Your task to perform on an android device: open app "Flipkart Online Shopping App" Image 0: 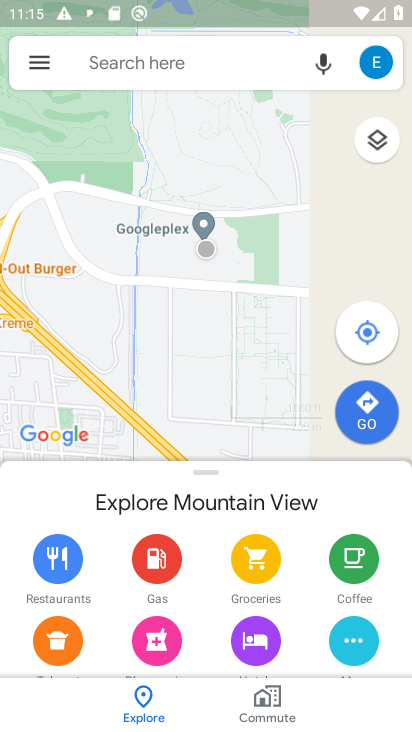
Step 0: press home button
Your task to perform on an android device: open app "Flipkart Online Shopping App" Image 1: 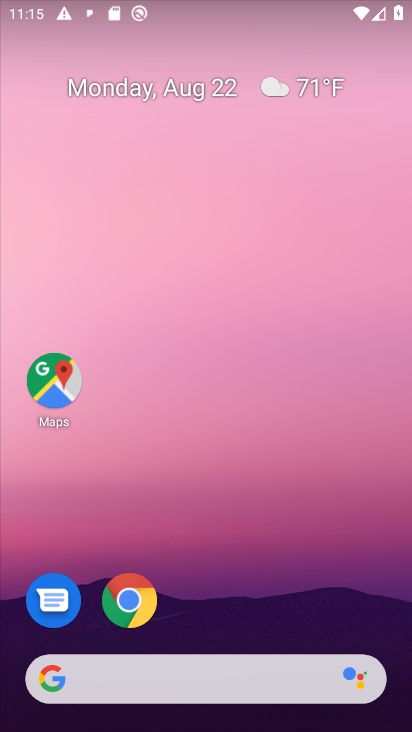
Step 1: drag from (195, 570) to (177, 140)
Your task to perform on an android device: open app "Flipkart Online Shopping App" Image 2: 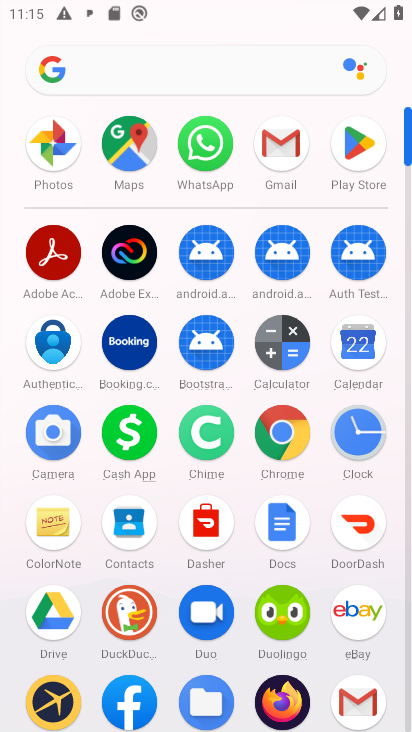
Step 2: click (359, 159)
Your task to perform on an android device: open app "Flipkart Online Shopping App" Image 3: 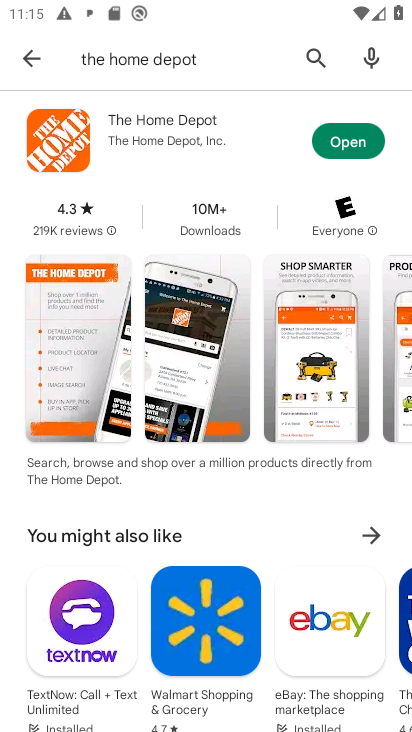
Step 3: click (310, 48)
Your task to perform on an android device: open app "Flipkart Online Shopping App" Image 4: 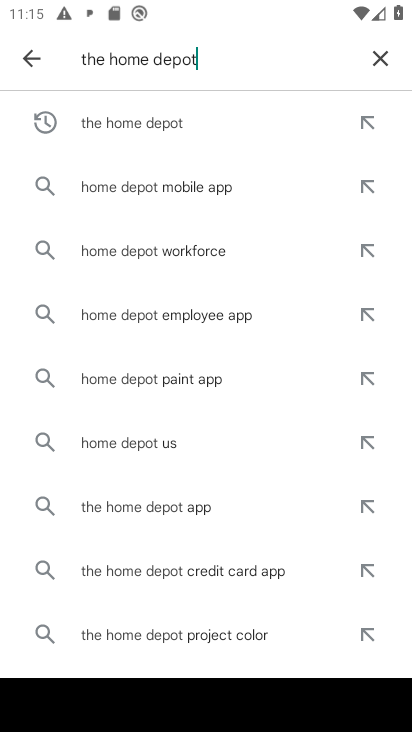
Step 4: click (377, 65)
Your task to perform on an android device: open app "Flipkart Online Shopping App" Image 5: 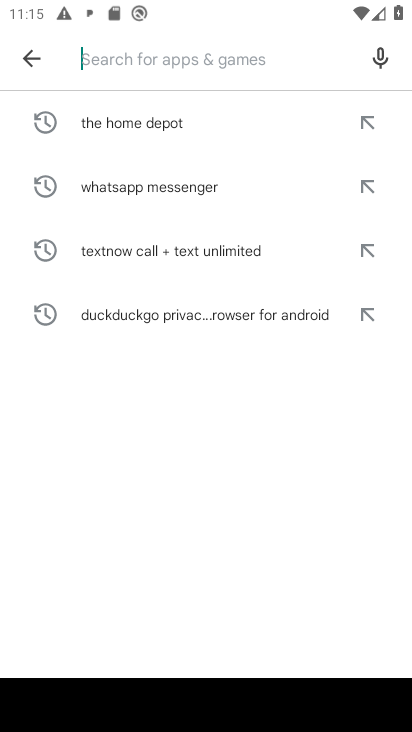
Step 5: type "Flipkart Online Shopping App"
Your task to perform on an android device: open app "Flipkart Online Shopping App" Image 6: 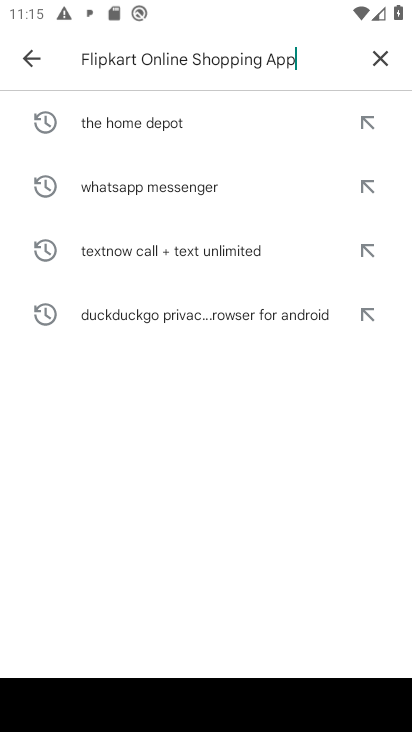
Step 6: type ""
Your task to perform on an android device: open app "Flipkart Online Shopping App" Image 7: 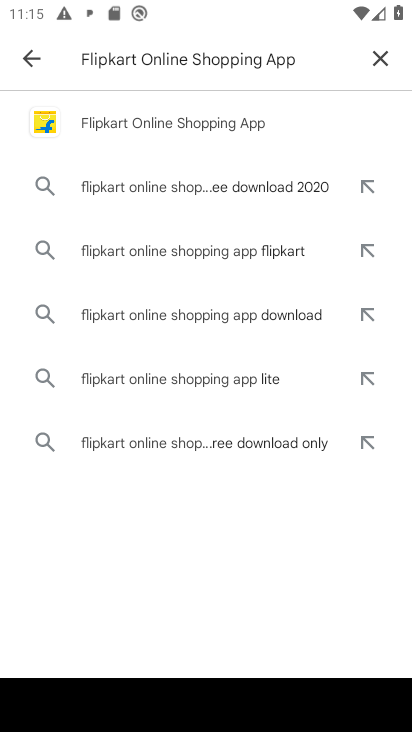
Step 7: click (189, 125)
Your task to perform on an android device: open app "Flipkart Online Shopping App" Image 8: 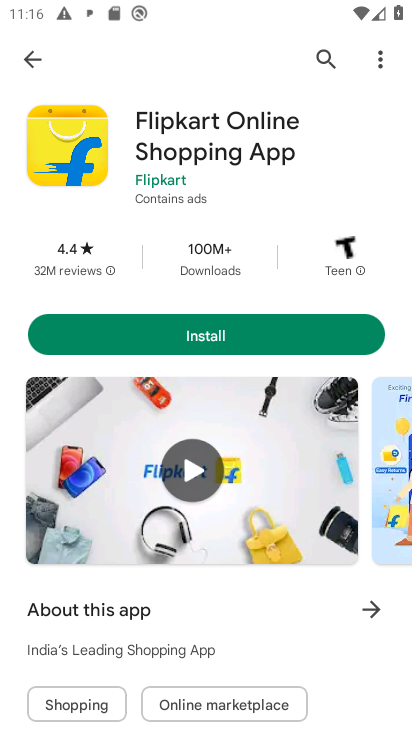
Step 8: task complete